Your task to perform on an android device: stop showing notifications on the lock screen Image 0: 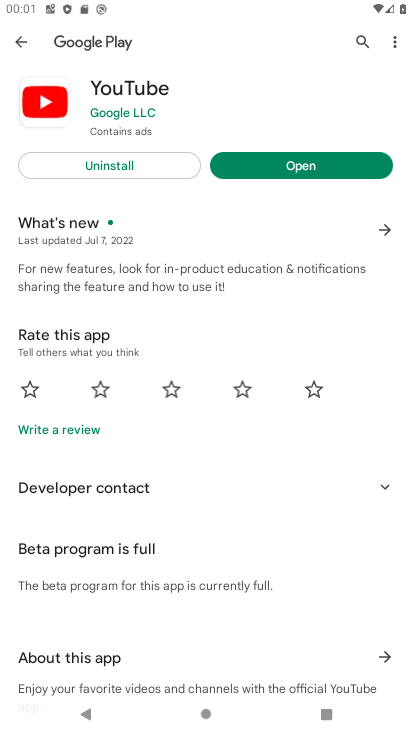
Step 0: drag from (245, 394) to (289, 148)
Your task to perform on an android device: stop showing notifications on the lock screen Image 1: 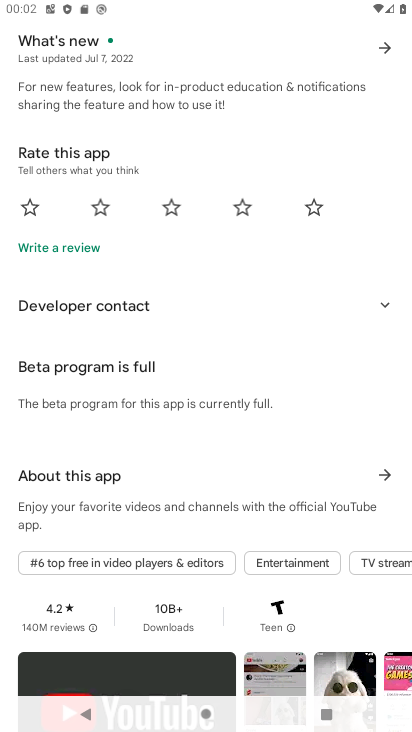
Step 1: press home button
Your task to perform on an android device: stop showing notifications on the lock screen Image 2: 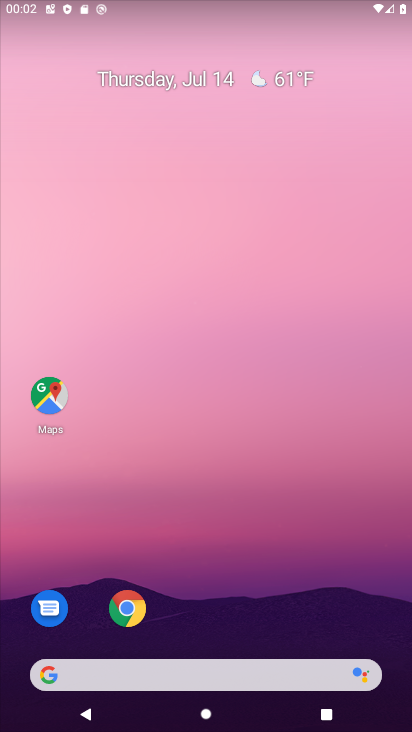
Step 2: drag from (171, 637) to (164, 125)
Your task to perform on an android device: stop showing notifications on the lock screen Image 3: 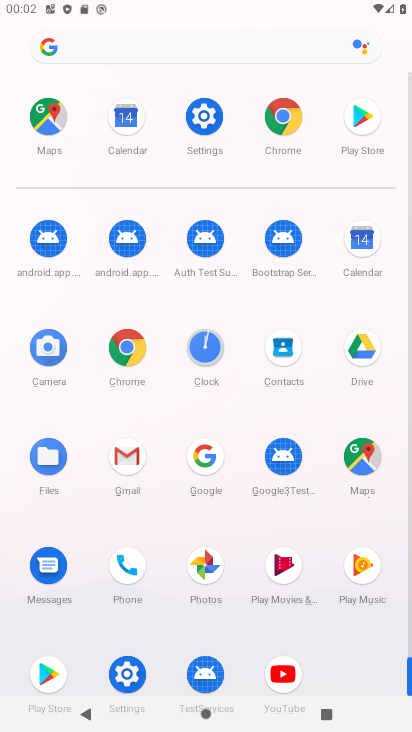
Step 3: click (207, 128)
Your task to perform on an android device: stop showing notifications on the lock screen Image 4: 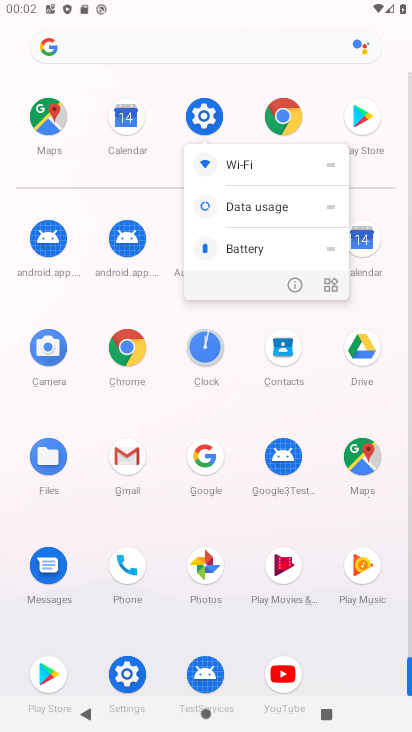
Step 4: click (288, 279)
Your task to perform on an android device: stop showing notifications on the lock screen Image 5: 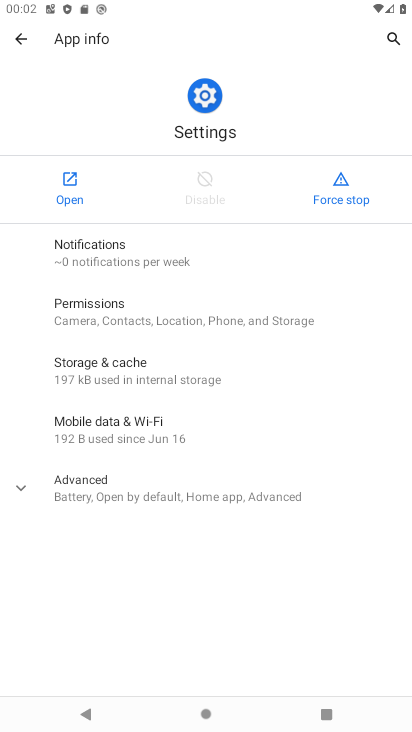
Step 5: click (70, 171)
Your task to perform on an android device: stop showing notifications on the lock screen Image 6: 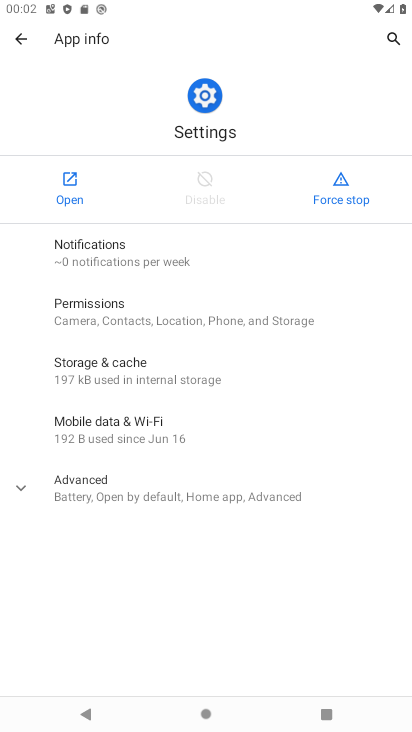
Step 6: click (70, 171)
Your task to perform on an android device: stop showing notifications on the lock screen Image 7: 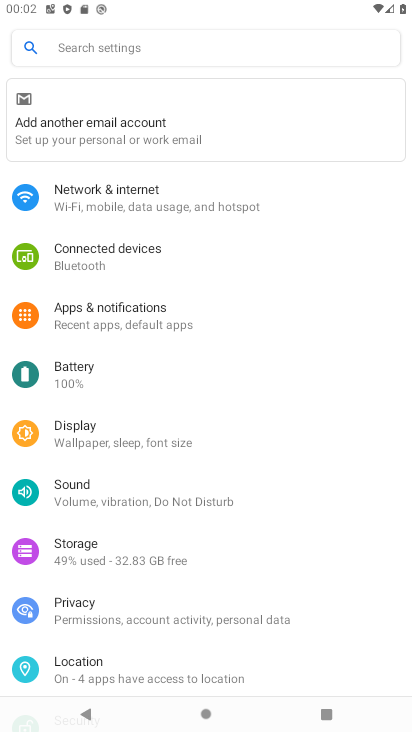
Step 7: drag from (129, 583) to (186, 219)
Your task to perform on an android device: stop showing notifications on the lock screen Image 8: 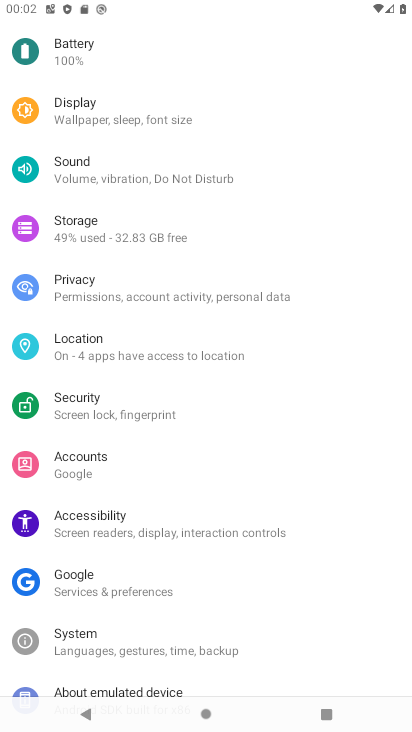
Step 8: drag from (137, 234) to (194, 661)
Your task to perform on an android device: stop showing notifications on the lock screen Image 9: 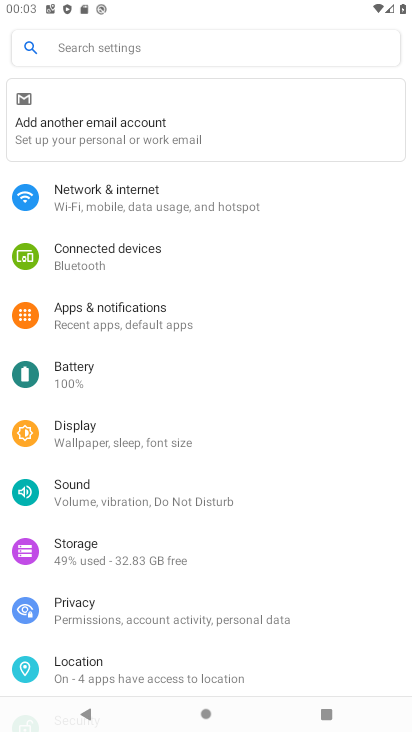
Step 9: click (113, 323)
Your task to perform on an android device: stop showing notifications on the lock screen Image 10: 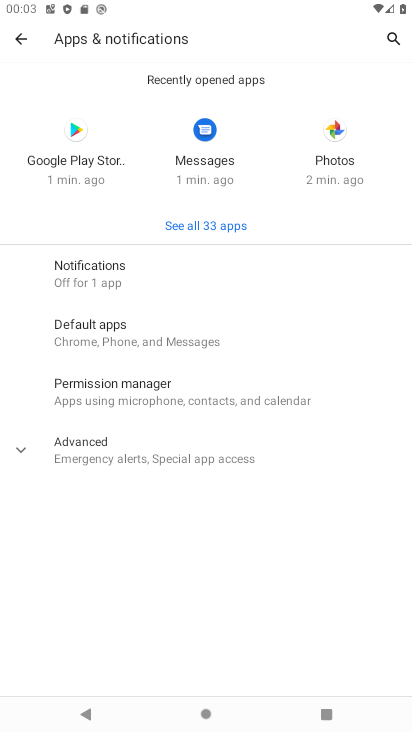
Step 10: click (151, 269)
Your task to perform on an android device: stop showing notifications on the lock screen Image 11: 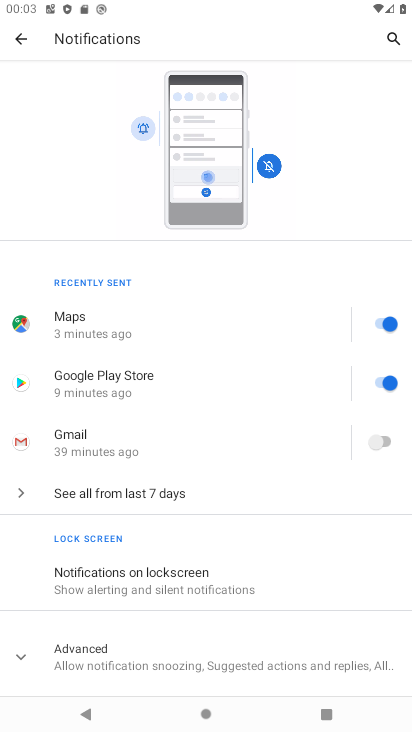
Step 11: click (133, 572)
Your task to perform on an android device: stop showing notifications on the lock screen Image 12: 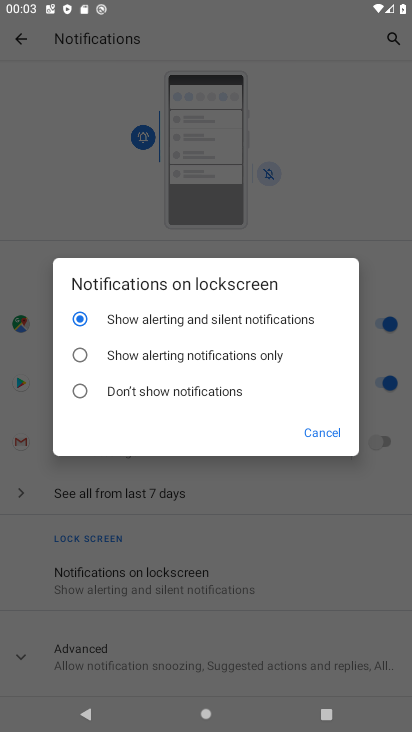
Step 12: click (176, 348)
Your task to perform on an android device: stop showing notifications on the lock screen Image 13: 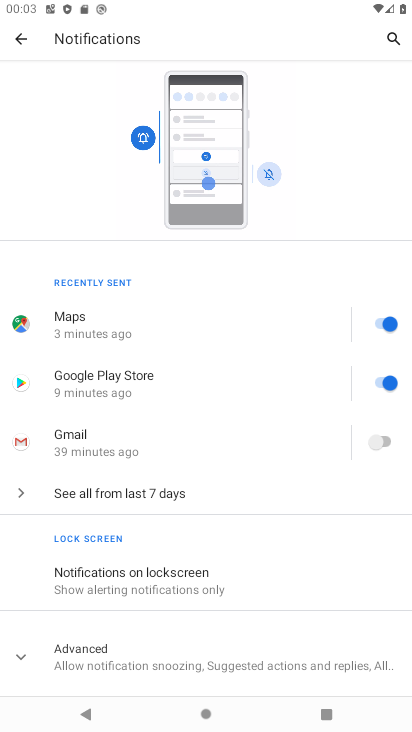
Step 13: task complete